Your task to perform on an android device: Open the phone app and click the voicemail tab. Image 0: 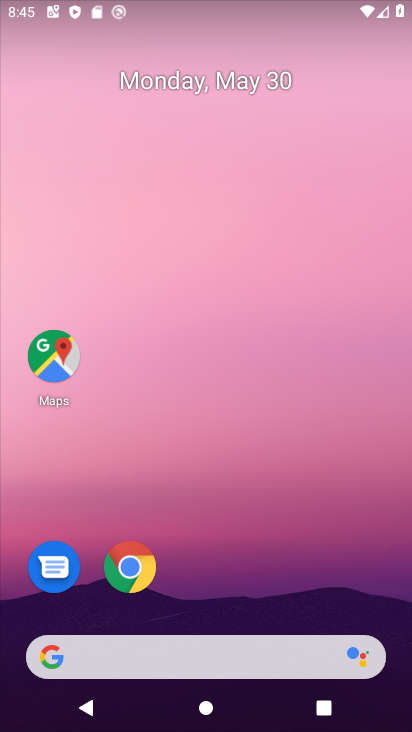
Step 0: drag from (219, 600) to (179, 262)
Your task to perform on an android device: Open the phone app and click the voicemail tab. Image 1: 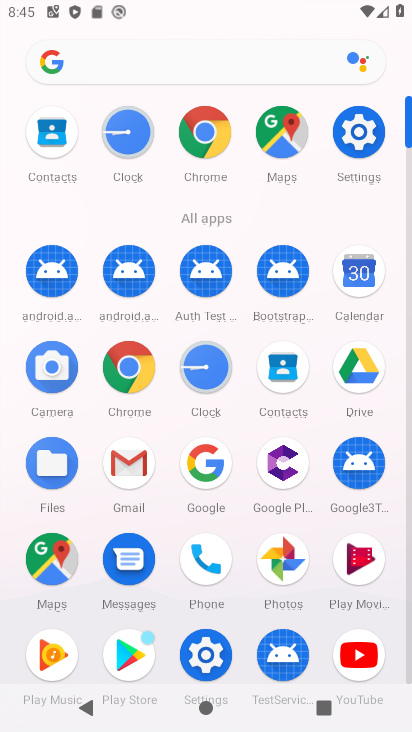
Step 1: click (200, 565)
Your task to perform on an android device: Open the phone app and click the voicemail tab. Image 2: 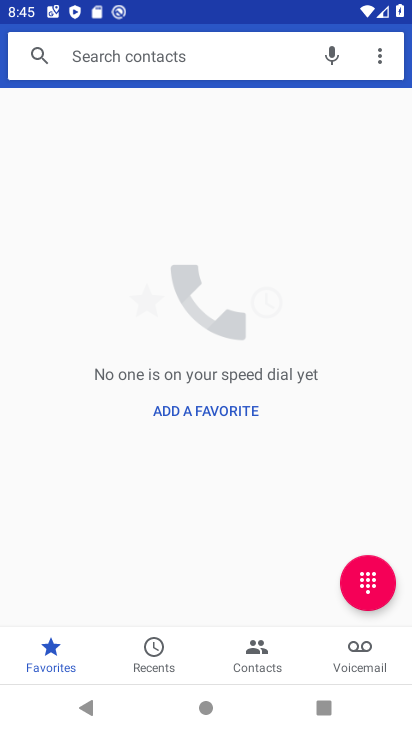
Step 2: click (367, 655)
Your task to perform on an android device: Open the phone app and click the voicemail tab. Image 3: 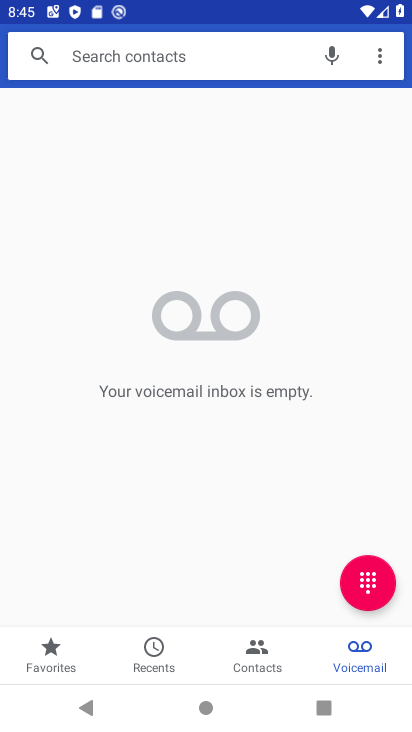
Step 3: task complete